Your task to perform on an android device: turn off sleep mode Image 0: 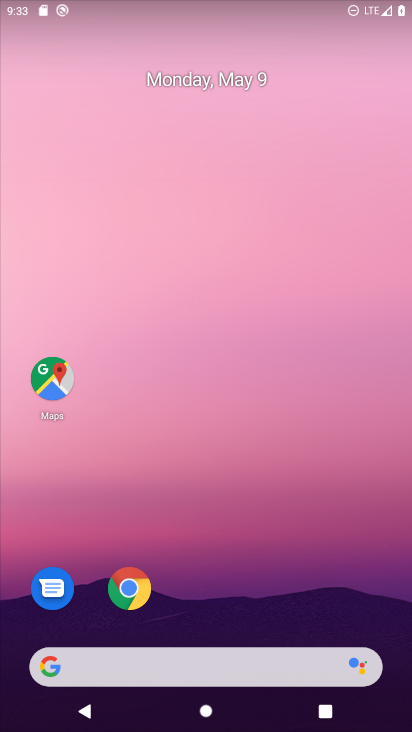
Step 0: drag from (267, 598) to (196, 172)
Your task to perform on an android device: turn off sleep mode Image 1: 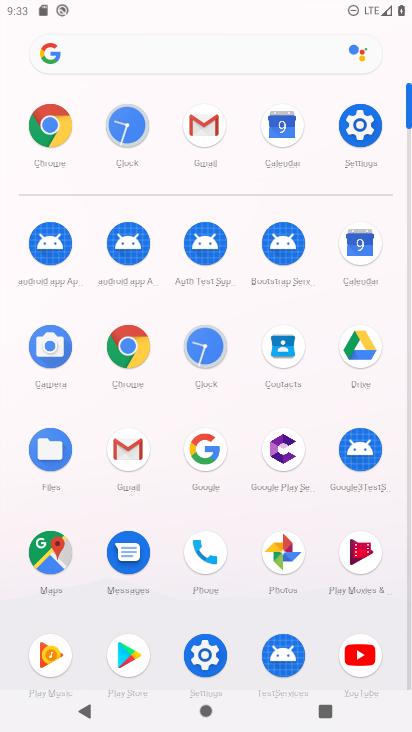
Step 1: click (356, 125)
Your task to perform on an android device: turn off sleep mode Image 2: 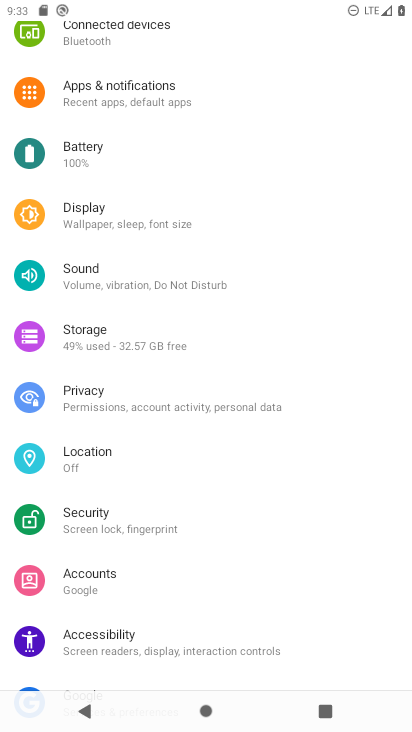
Step 2: click (189, 218)
Your task to perform on an android device: turn off sleep mode Image 3: 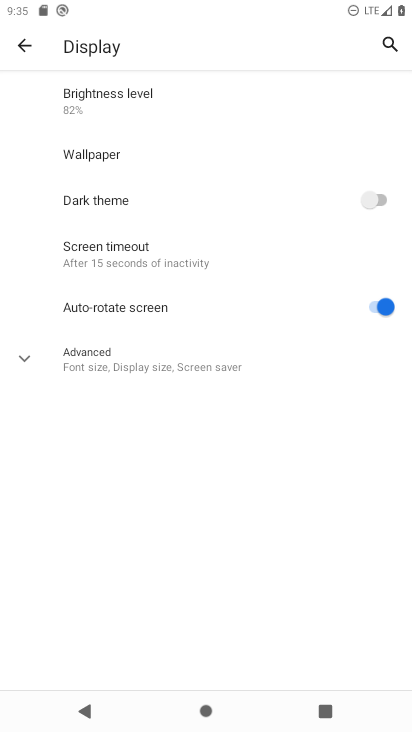
Step 3: click (231, 263)
Your task to perform on an android device: turn off sleep mode Image 4: 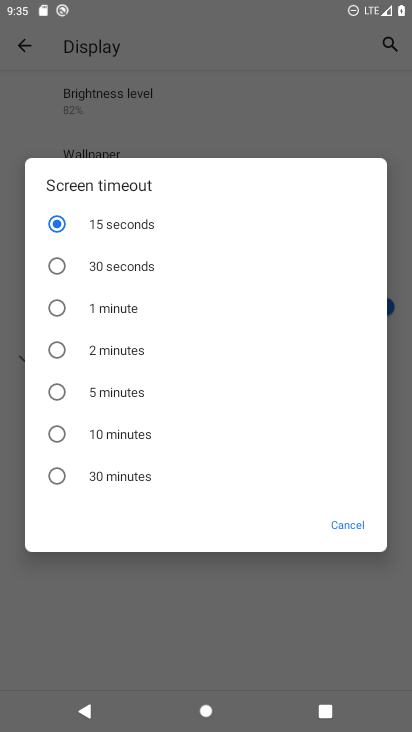
Step 4: click (168, 228)
Your task to perform on an android device: turn off sleep mode Image 5: 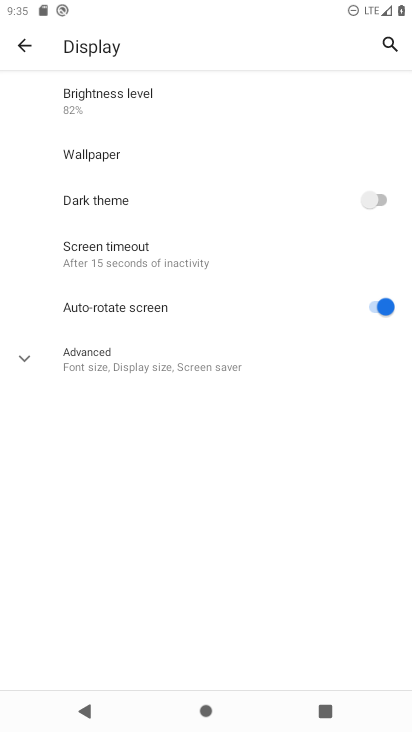
Step 5: task complete